Your task to perform on an android device: Open Chrome and go to settings Image 0: 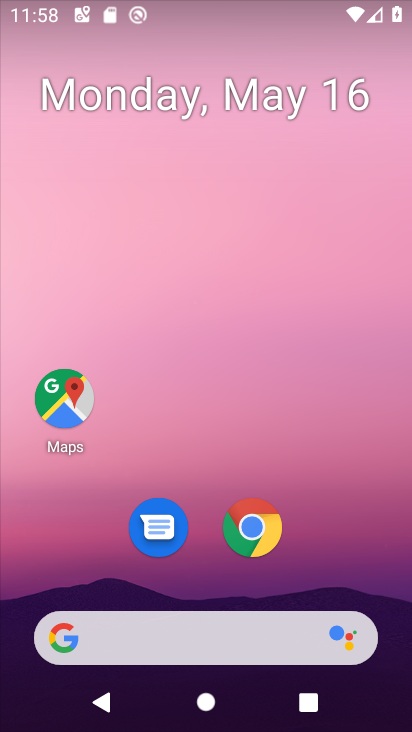
Step 0: click (267, 532)
Your task to perform on an android device: Open Chrome and go to settings Image 1: 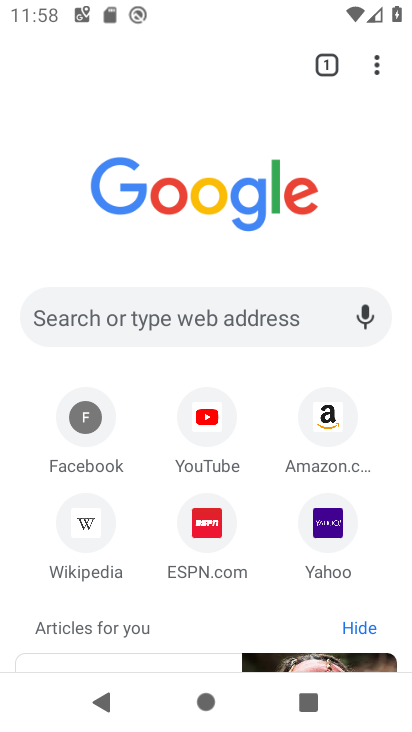
Step 1: click (382, 65)
Your task to perform on an android device: Open Chrome and go to settings Image 2: 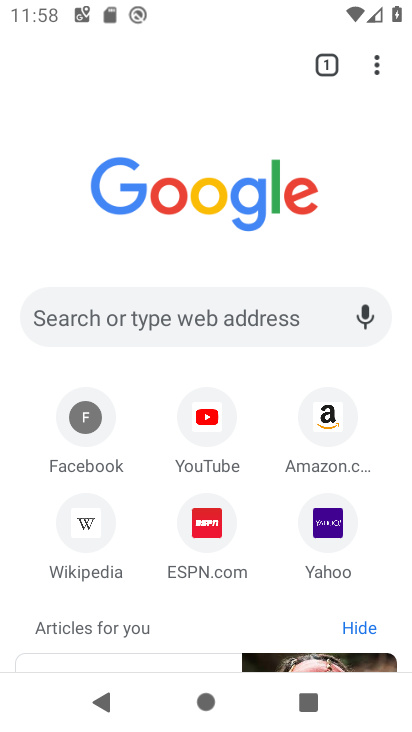
Step 2: task complete